Your task to perform on an android device: Open my contact list Image 0: 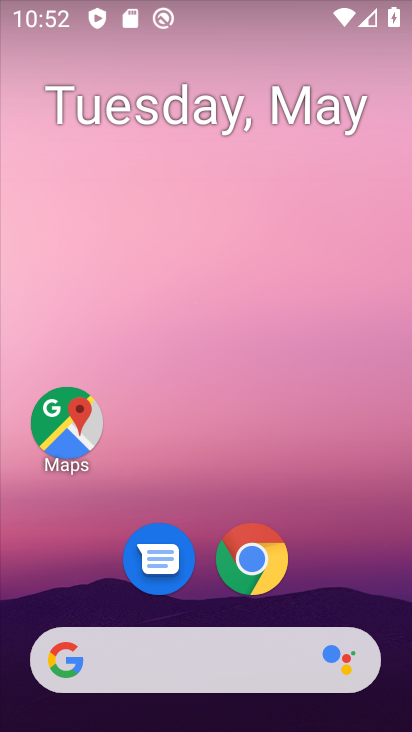
Step 0: drag from (347, 590) to (281, 6)
Your task to perform on an android device: Open my contact list Image 1: 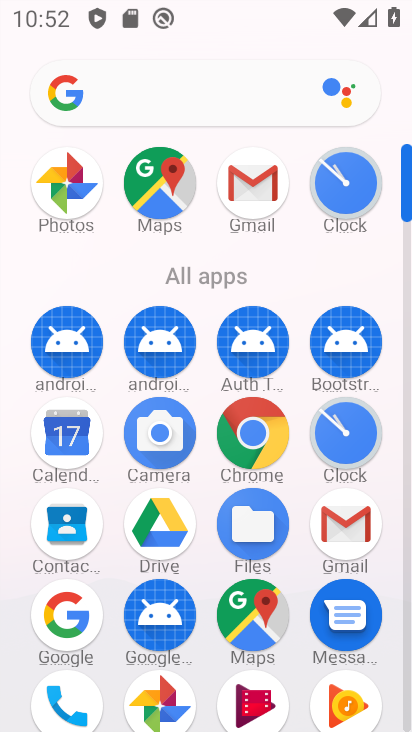
Step 1: click (70, 518)
Your task to perform on an android device: Open my contact list Image 2: 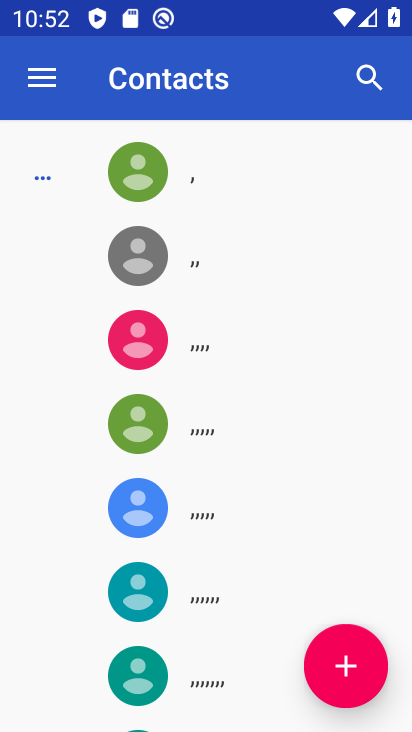
Step 2: task complete